Your task to perform on an android device: turn off airplane mode Image 0: 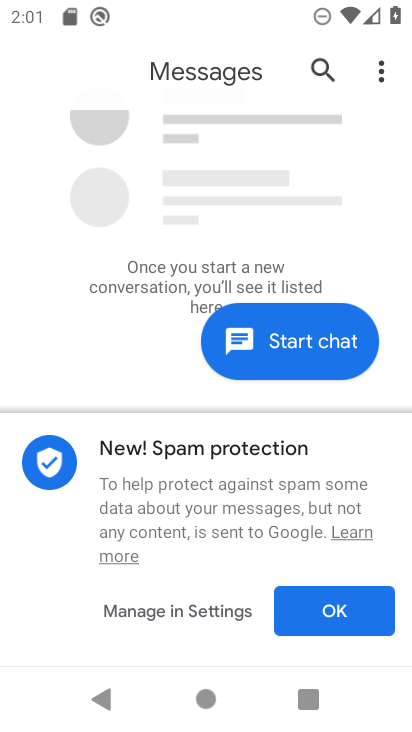
Step 0: press home button
Your task to perform on an android device: turn off airplane mode Image 1: 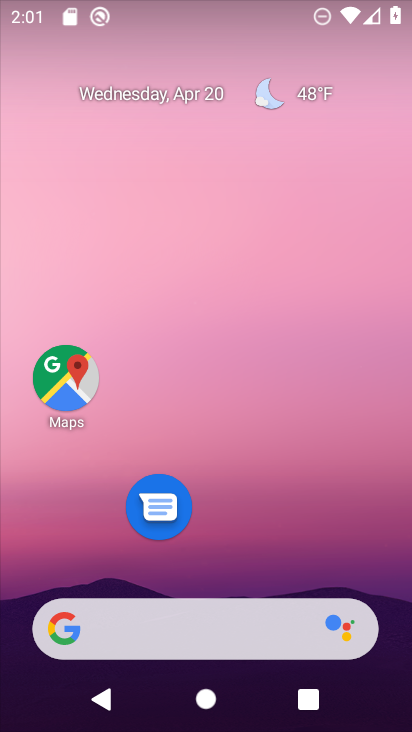
Step 1: drag from (211, 726) to (212, 61)
Your task to perform on an android device: turn off airplane mode Image 2: 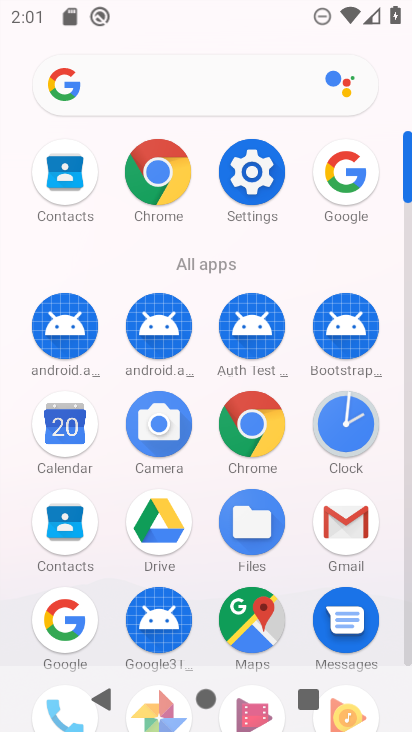
Step 2: click (251, 173)
Your task to perform on an android device: turn off airplane mode Image 3: 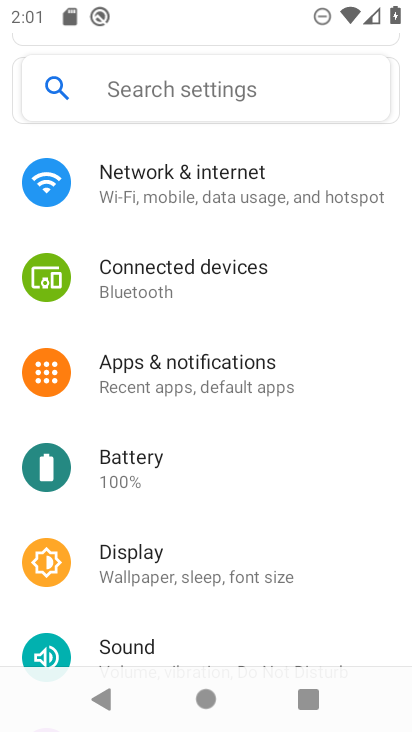
Step 3: click (195, 180)
Your task to perform on an android device: turn off airplane mode Image 4: 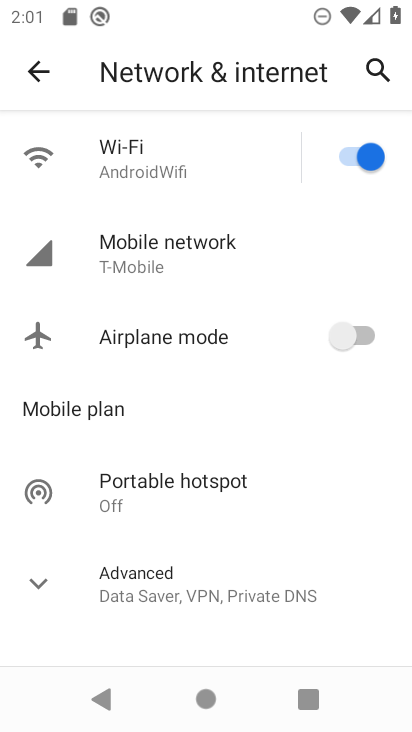
Step 4: task complete